Your task to perform on an android device: Open location settings Image 0: 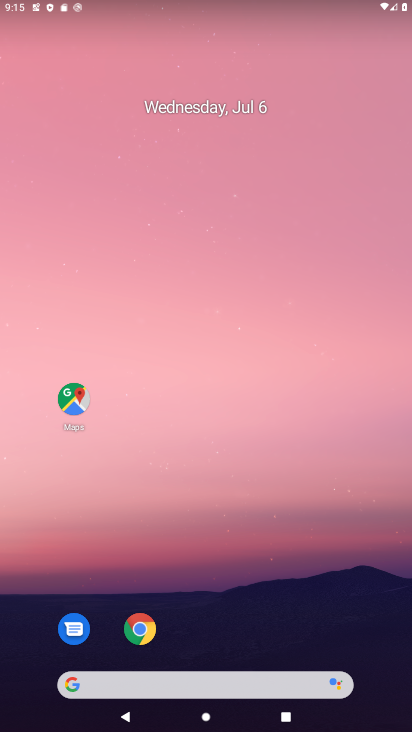
Step 0: drag from (206, 617) to (225, 129)
Your task to perform on an android device: Open location settings Image 1: 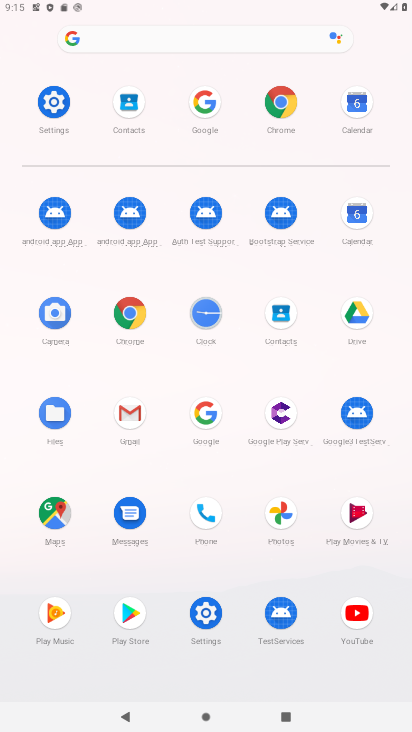
Step 1: click (47, 96)
Your task to perform on an android device: Open location settings Image 2: 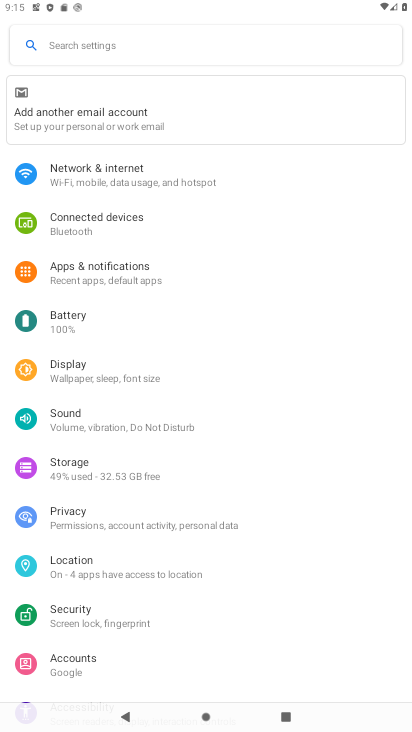
Step 2: click (74, 566)
Your task to perform on an android device: Open location settings Image 3: 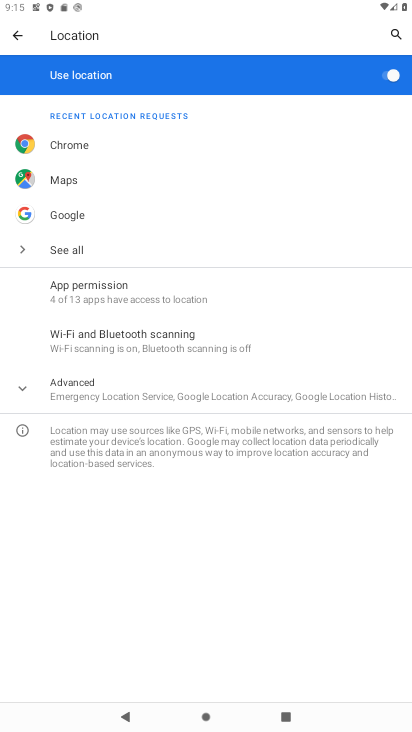
Step 3: task complete